Your task to perform on an android device: Show me popular games on the Play Store Image 0: 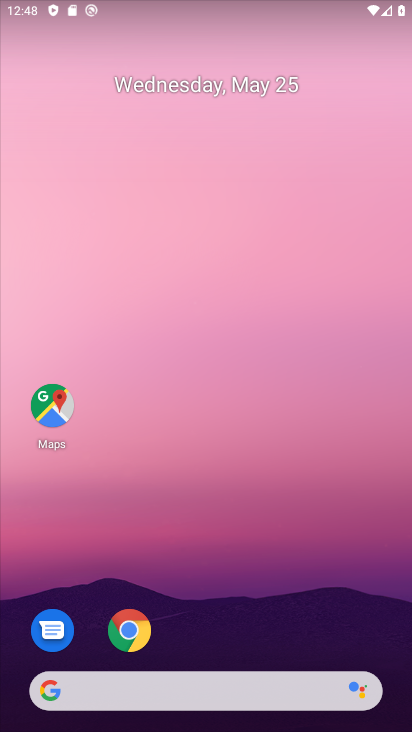
Step 0: drag from (326, 571) to (184, 18)
Your task to perform on an android device: Show me popular games on the Play Store Image 1: 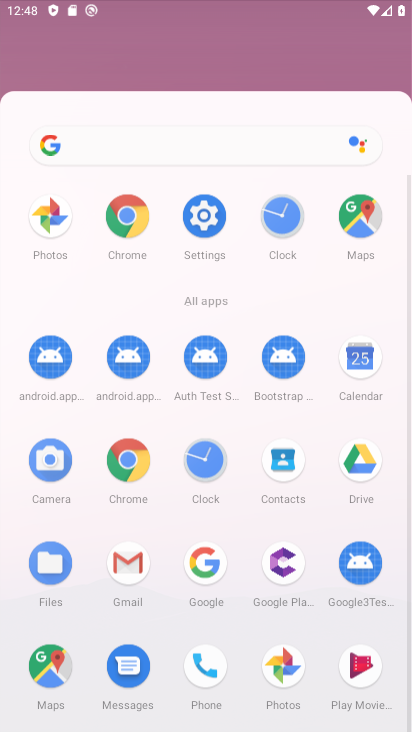
Step 1: drag from (244, 486) to (193, 27)
Your task to perform on an android device: Show me popular games on the Play Store Image 2: 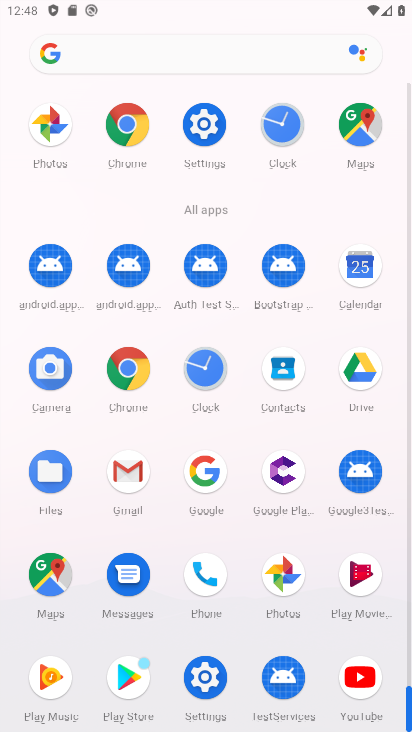
Step 2: click (117, 684)
Your task to perform on an android device: Show me popular games on the Play Store Image 3: 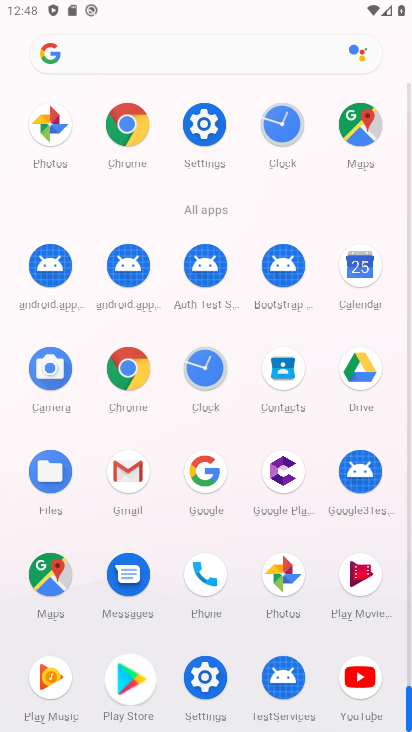
Step 3: click (123, 682)
Your task to perform on an android device: Show me popular games on the Play Store Image 4: 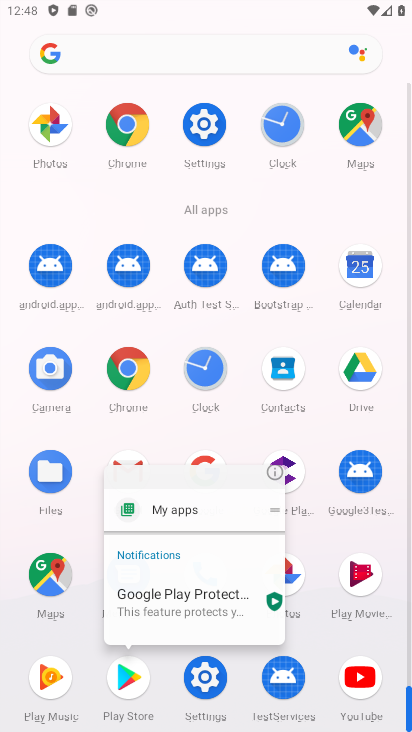
Step 4: click (126, 681)
Your task to perform on an android device: Show me popular games on the Play Store Image 5: 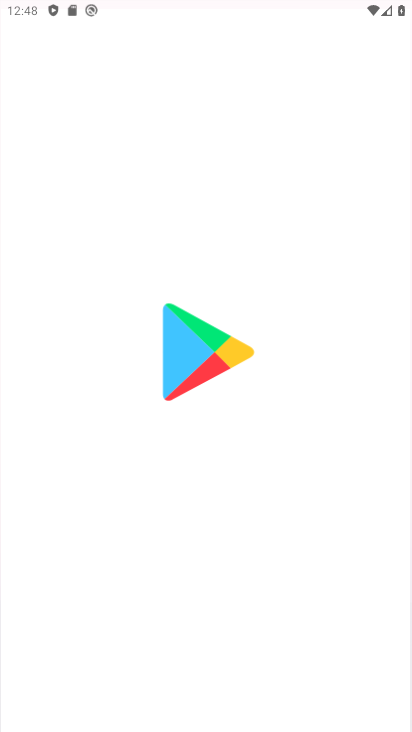
Step 5: click (93, 648)
Your task to perform on an android device: Show me popular games on the Play Store Image 6: 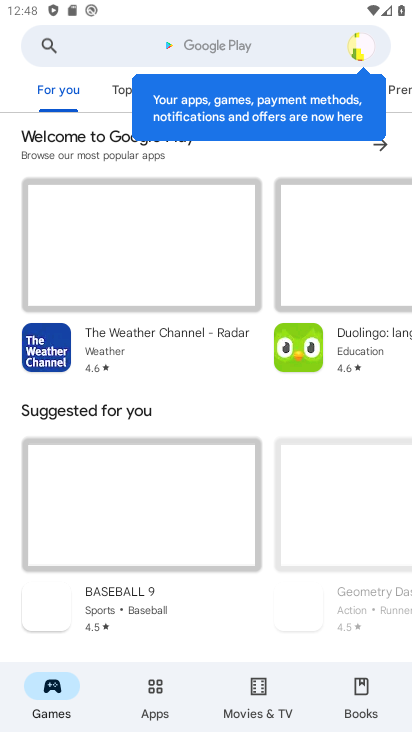
Step 6: click (129, 44)
Your task to perform on an android device: Show me popular games on the Play Store Image 7: 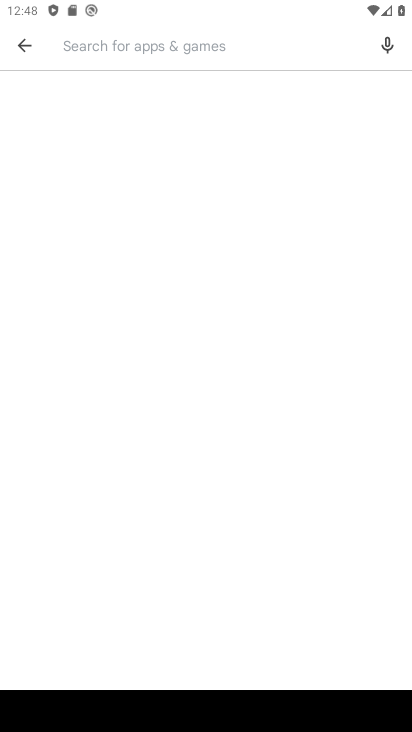
Step 7: type "popular games"
Your task to perform on an android device: Show me popular games on the Play Store Image 8: 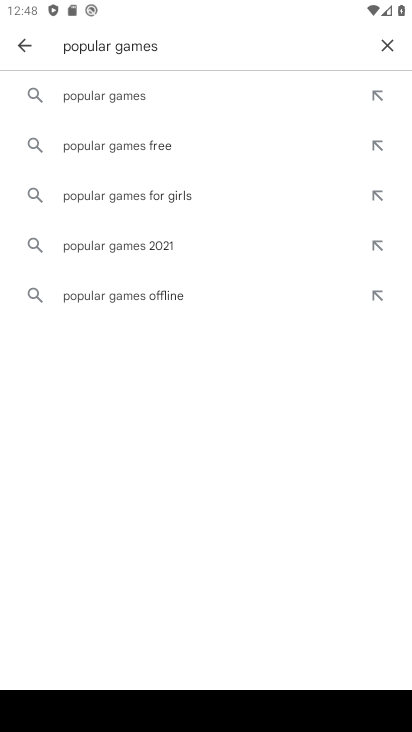
Step 8: click (105, 94)
Your task to perform on an android device: Show me popular games on the Play Store Image 9: 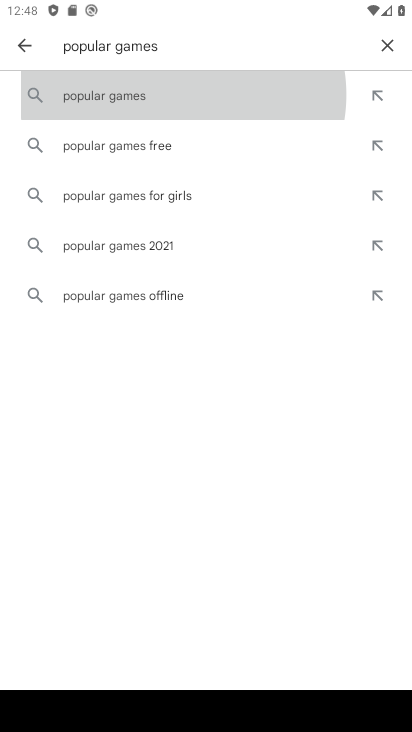
Step 9: click (105, 94)
Your task to perform on an android device: Show me popular games on the Play Store Image 10: 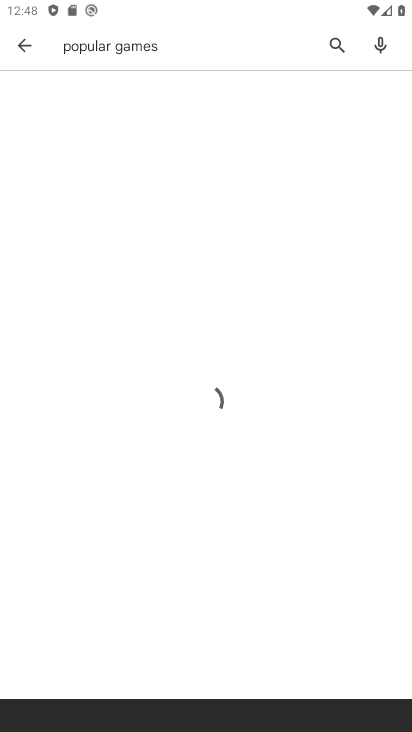
Step 10: click (105, 94)
Your task to perform on an android device: Show me popular games on the Play Store Image 11: 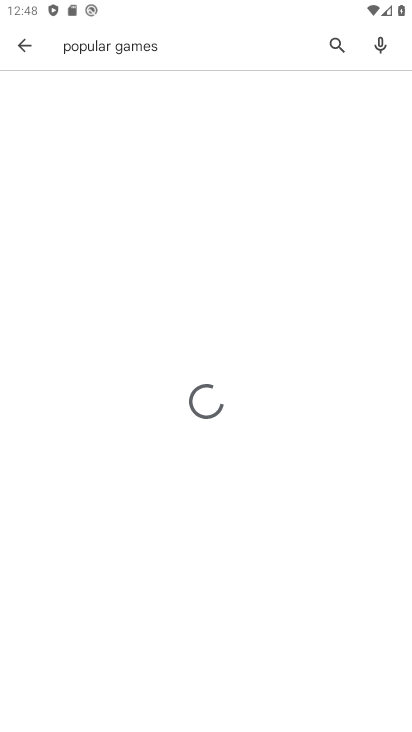
Step 11: click (105, 93)
Your task to perform on an android device: Show me popular games on the Play Store Image 12: 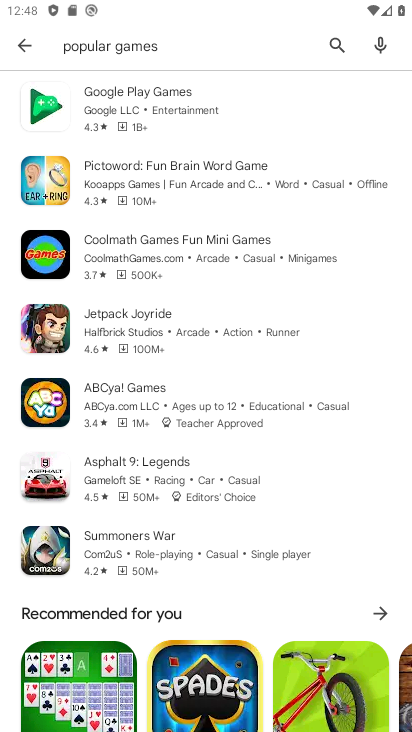
Step 12: task complete